Your task to perform on an android device: turn notification dots off Image 0: 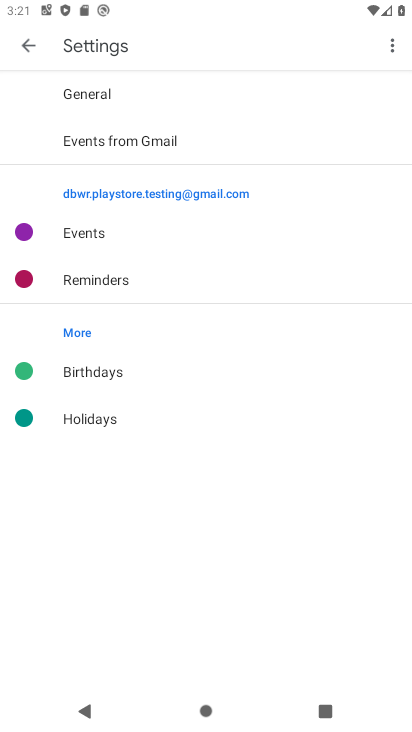
Step 0: press home button
Your task to perform on an android device: turn notification dots off Image 1: 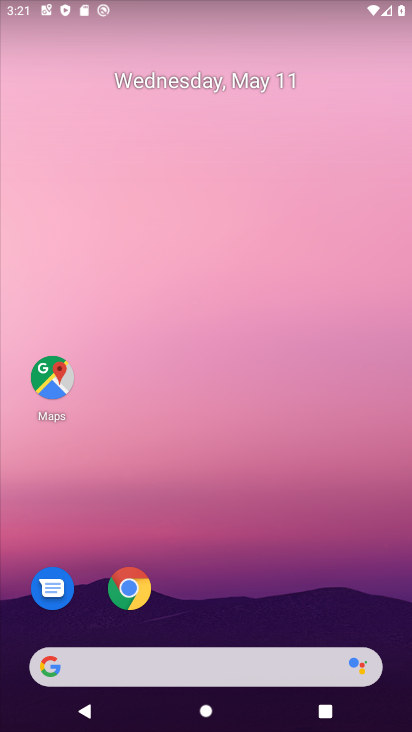
Step 1: drag from (247, 505) to (291, 5)
Your task to perform on an android device: turn notification dots off Image 2: 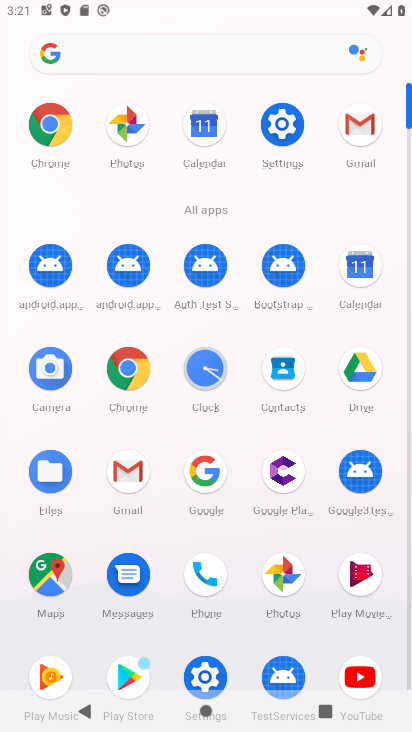
Step 2: click (300, 147)
Your task to perform on an android device: turn notification dots off Image 3: 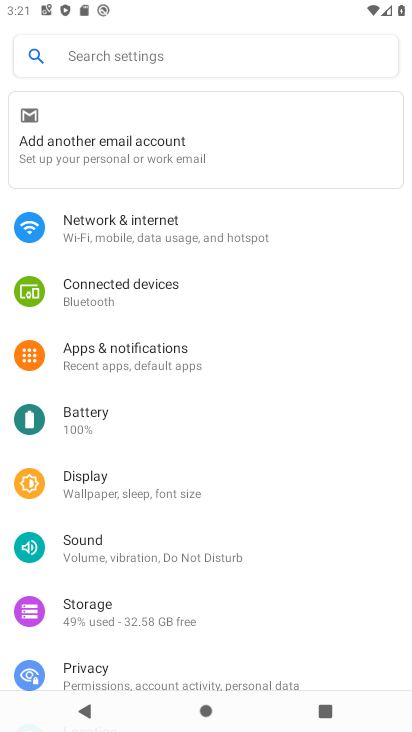
Step 3: click (150, 359)
Your task to perform on an android device: turn notification dots off Image 4: 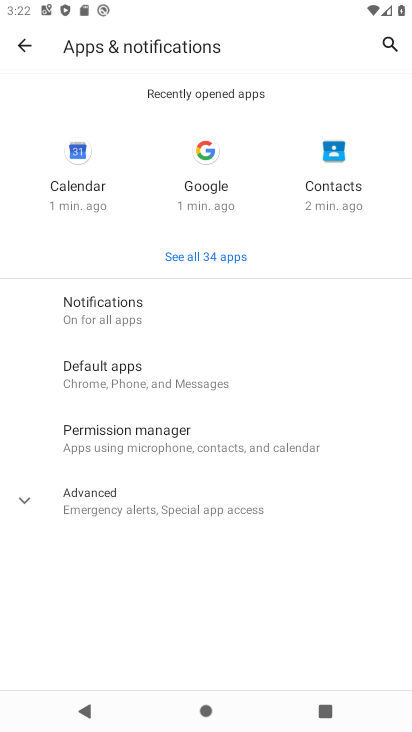
Step 4: click (147, 310)
Your task to perform on an android device: turn notification dots off Image 5: 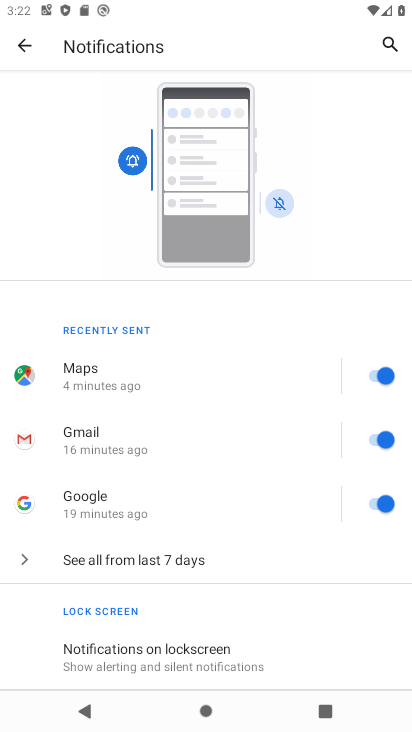
Step 5: drag from (136, 613) to (216, 357)
Your task to perform on an android device: turn notification dots off Image 6: 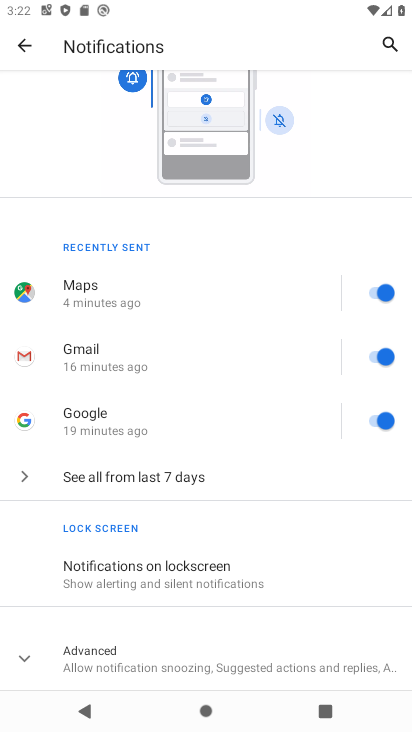
Step 6: drag from (163, 670) to (269, 331)
Your task to perform on an android device: turn notification dots off Image 7: 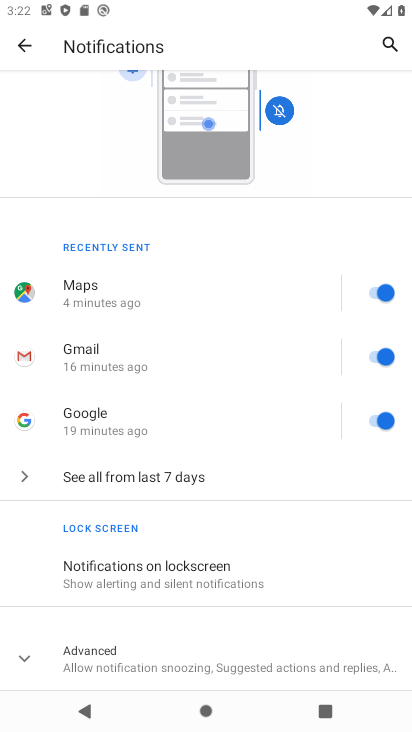
Step 7: click (110, 659)
Your task to perform on an android device: turn notification dots off Image 8: 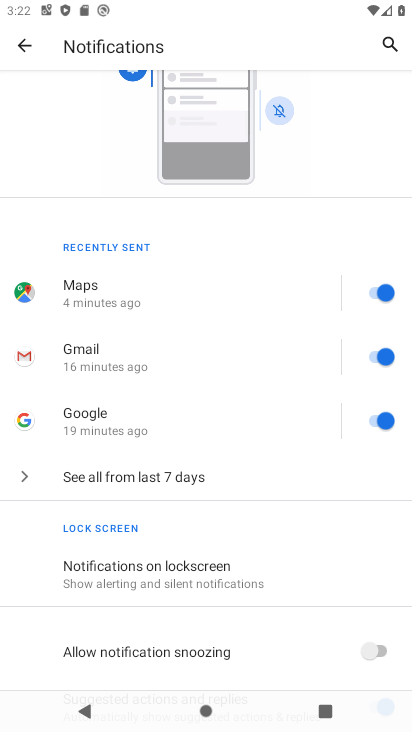
Step 8: drag from (175, 595) to (229, 230)
Your task to perform on an android device: turn notification dots off Image 9: 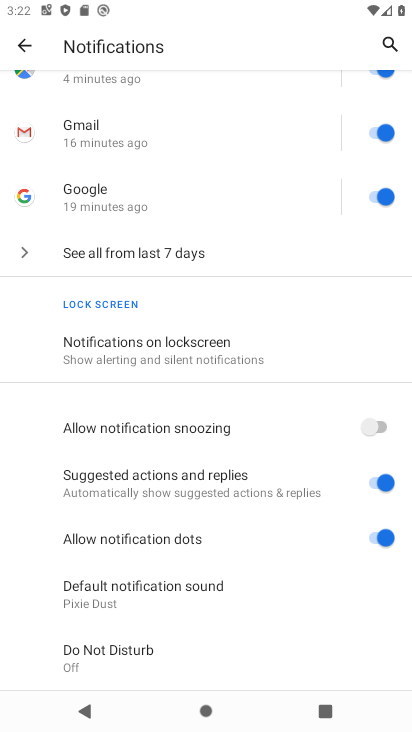
Step 9: click (350, 527)
Your task to perform on an android device: turn notification dots off Image 10: 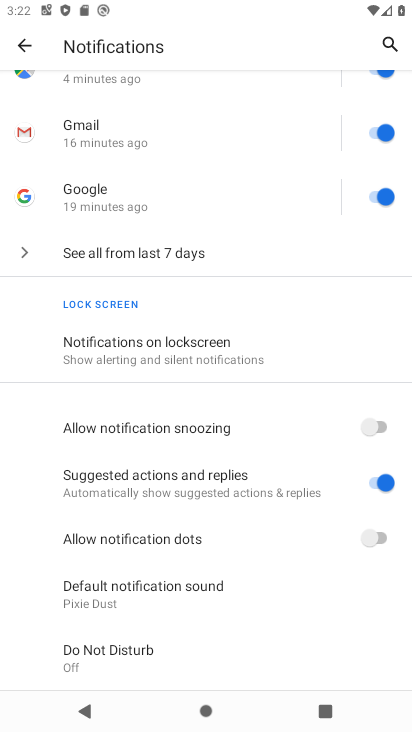
Step 10: task complete